Your task to perform on an android device: change the clock display to digital Image 0: 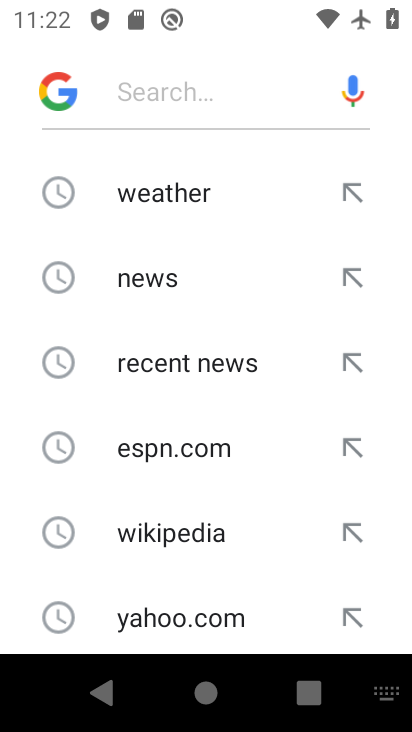
Step 0: press home button
Your task to perform on an android device: change the clock display to digital Image 1: 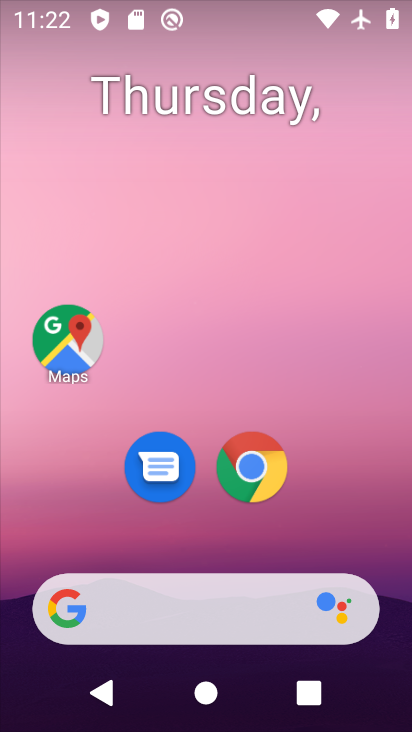
Step 1: drag from (322, 548) to (344, 1)
Your task to perform on an android device: change the clock display to digital Image 2: 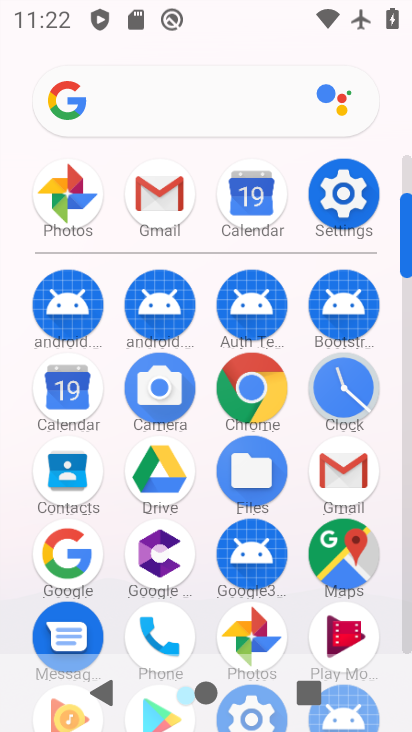
Step 2: click (337, 389)
Your task to perform on an android device: change the clock display to digital Image 3: 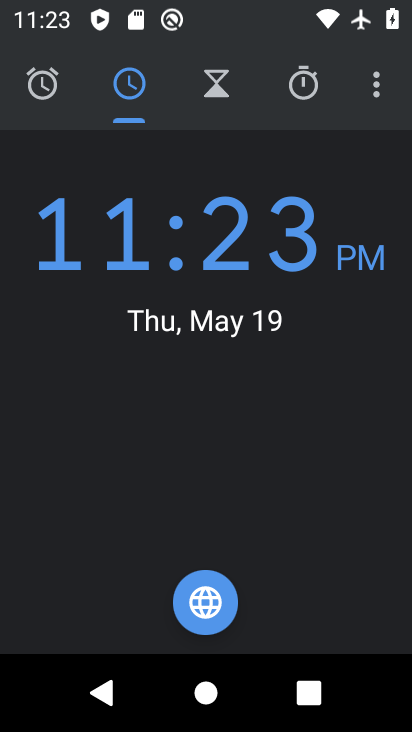
Step 3: click (378, 93)
Your task to perform on an android device: change the clock display to digital Image 4: 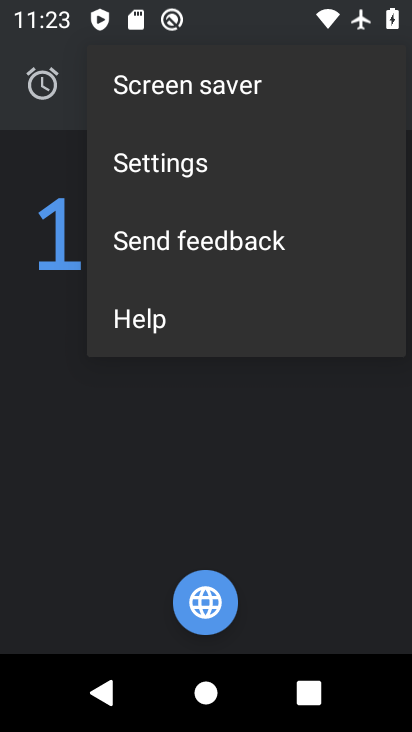
Step 4: click (171, 172)
Your task to perform on an android device: change the clock display to digital Image 5: 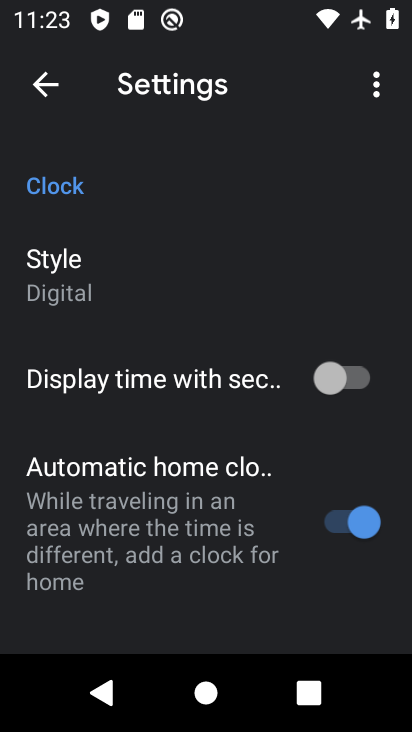
Step 5: task complete